Your task to perform on an android device: turn on javascript in the chrome app Image 0: 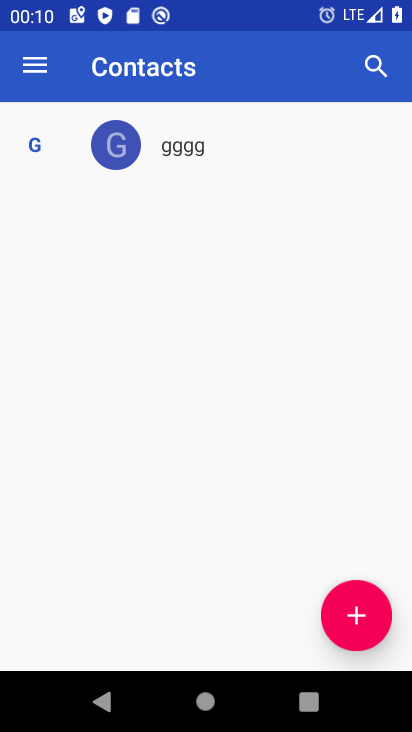
Step 0: press home button
Your task to perform on an android device: turn on javascript in the chrome app Image 1: 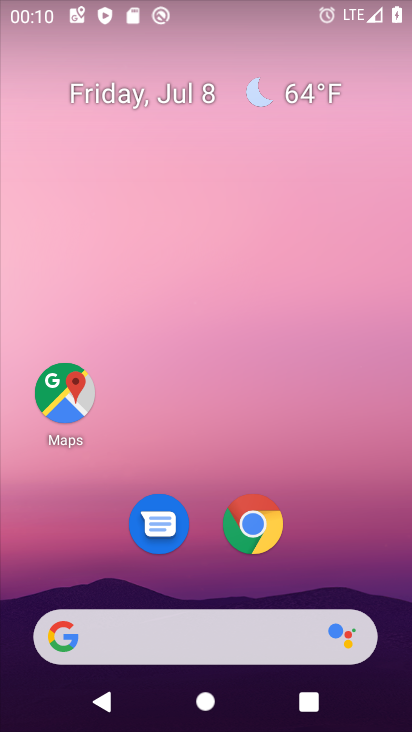
Step 1: click (271, 528)
Your task to perform on an android device: turn on javascript in the chrome app Image 2: 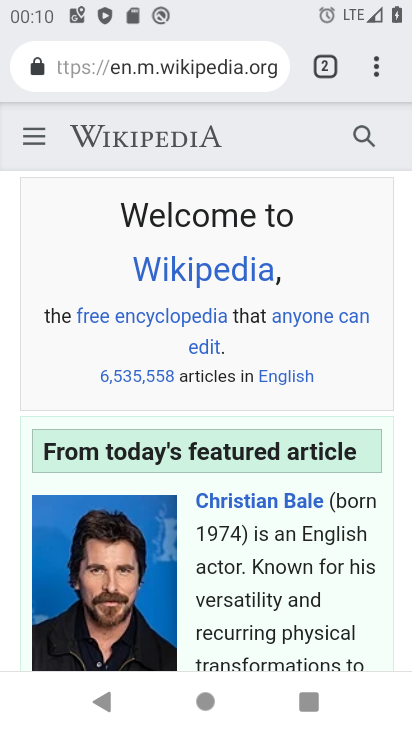
Step 2: click (374, 72)
Your task to perform on an android device: turn on javascript in the chrome app Image 3: 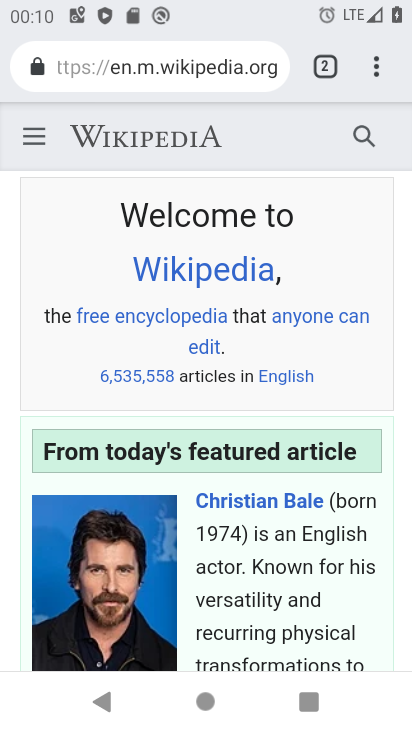
Step 3: click (374, 72)
Your task to perform on an android device: turn on javascript in the chrome app Image 4: 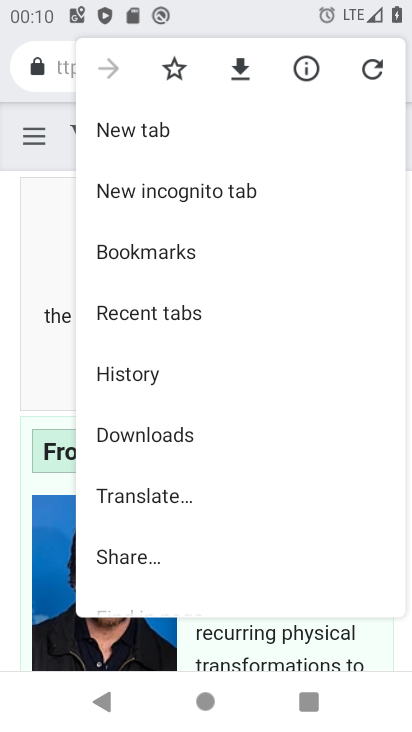
Step 4: drag from (228, 433) to (214, 106)
Your task to perform on an android device: turn on javascript in the chrome app Image 5: 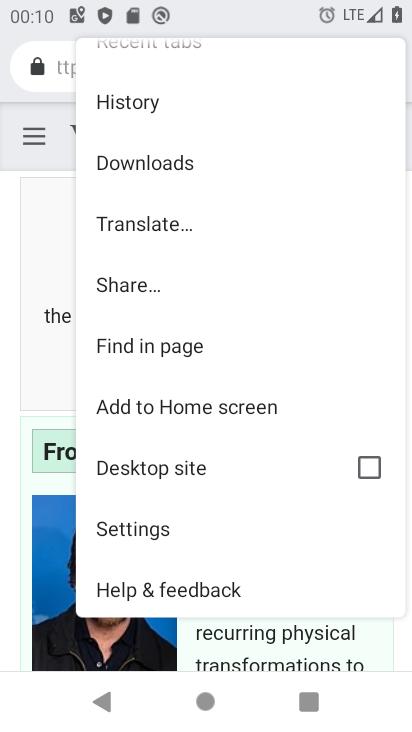
Step 5: click (163, 521)
Your task to perform on an android device: turn on javascript in the chrome app Image 6: 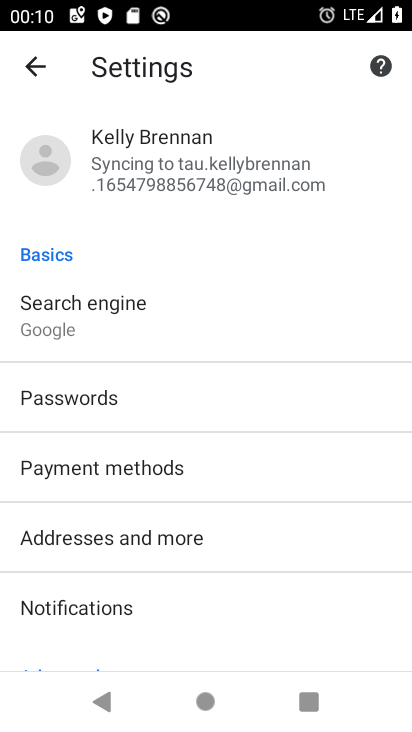
Step 6: drag from (237, 561) to (341, 104)
Your task to perform on an android device: turn on javascript in the chrome app Image 7: 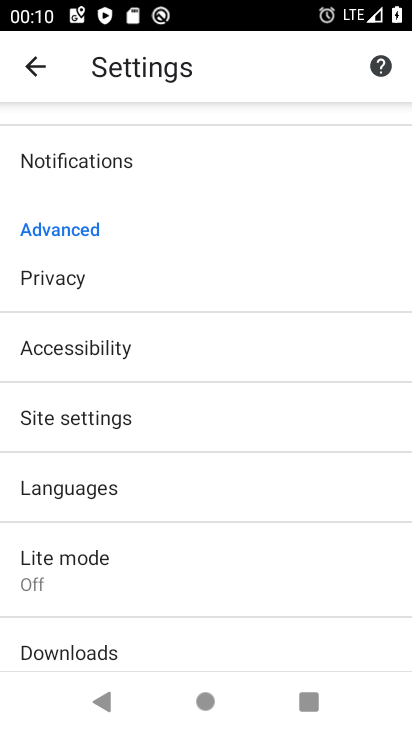
Step 7: click (114, 421)
Your task to perform on an android device: turn on javascript in the chrome app Image 8: 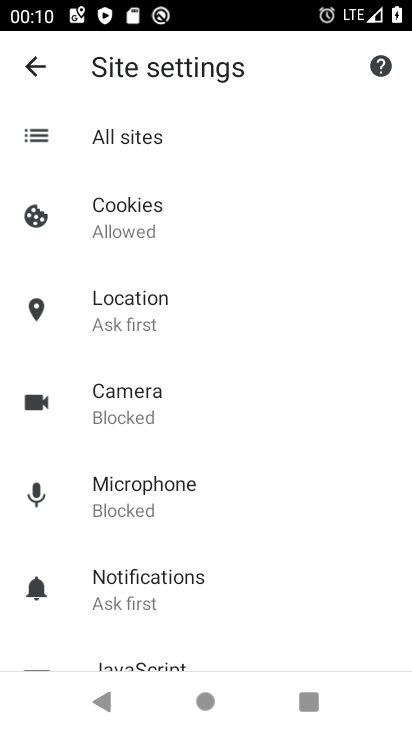
Step 8: drag from (224, 507) to (233, 374)
Your task to perform on an android device: turn on javascript in the chrome app Image 9: 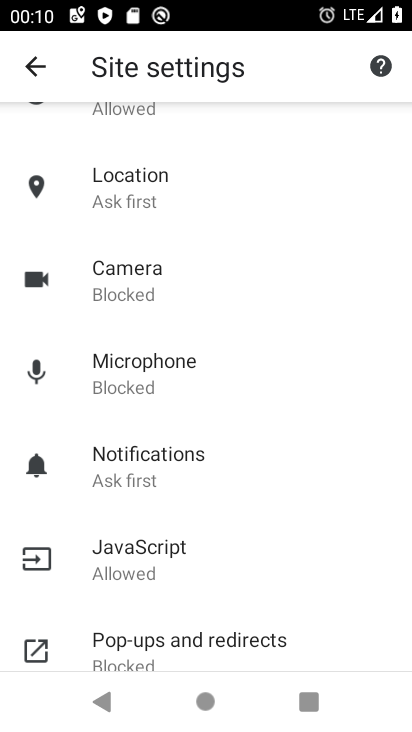
Step 9: click (144, 556)
Your task to perform on an android device: turn on javascript in the chrome app Image 10: 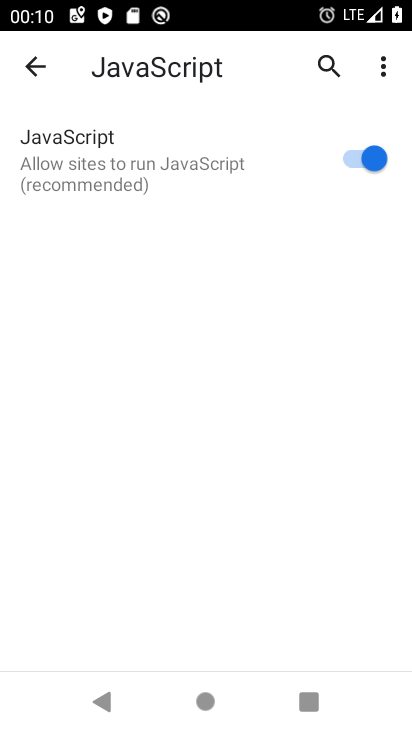
Step 10: task complete